Your task to perform on an android device: Search for 8K TVs on Best Buy. Image 0: 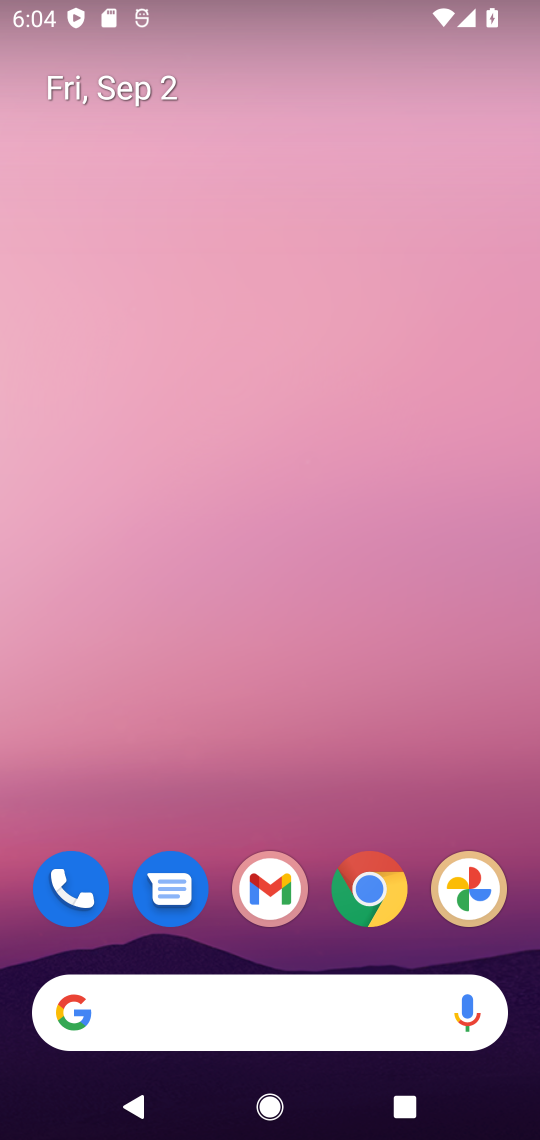
Step 0: click (268, 1023)
Your task to perform on an android device: Search for 8K TVs on Best Buy. Image 1: 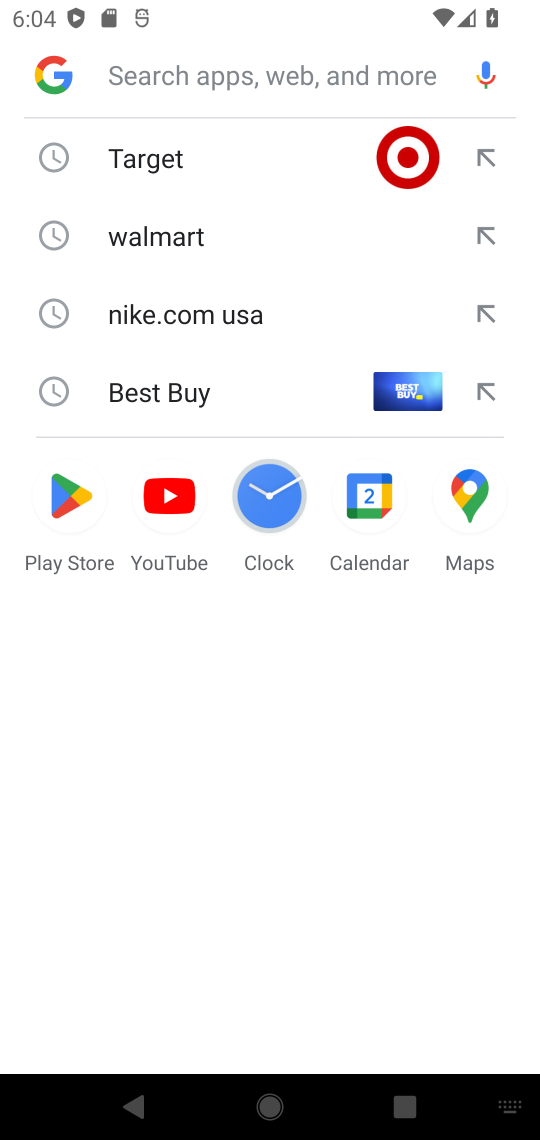
Step 1: click (211, 401)
Your task to perform on an android device: Search for 8K TVs on Best Buy. Image 2: 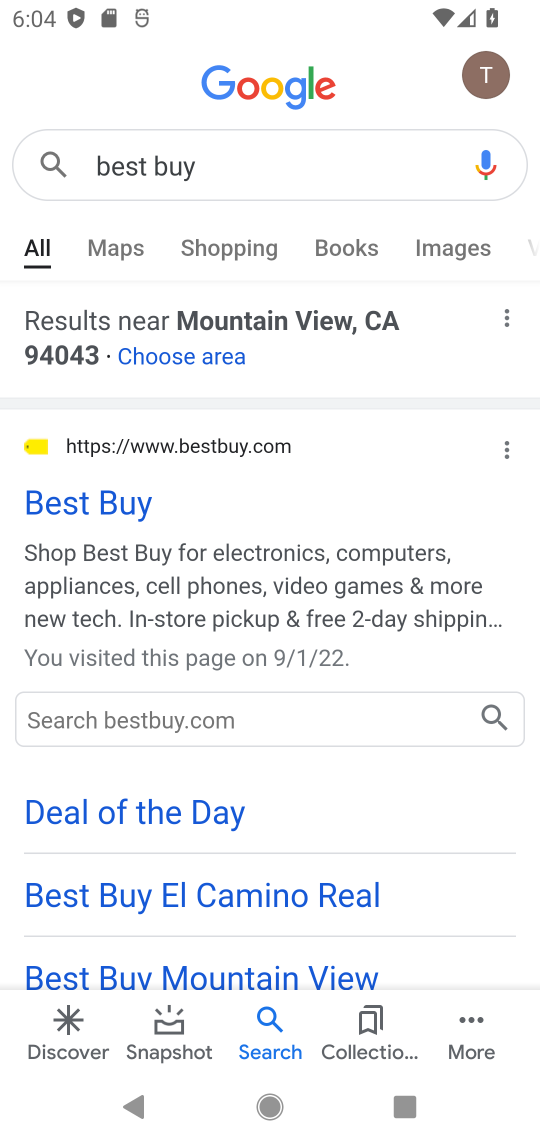
Step 2: click (119, 498)
Your task to perform on an android device: Search for 8K TVs on Best Buy. Image 3: 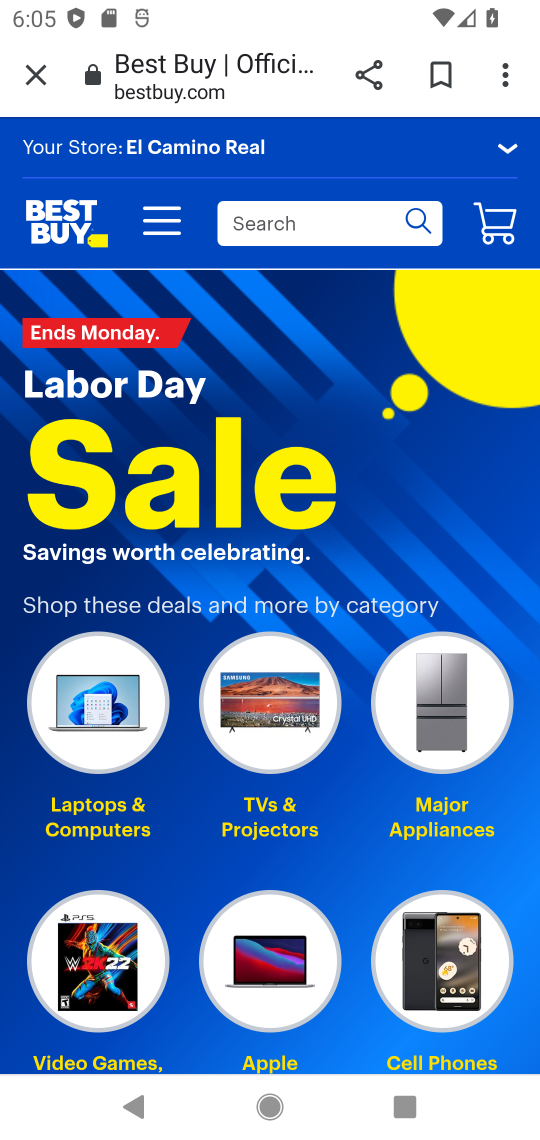
Step 3: click (270, 210)
Your task to perform on an android device: Search for 8K TVs on Best Buy. Image 4: 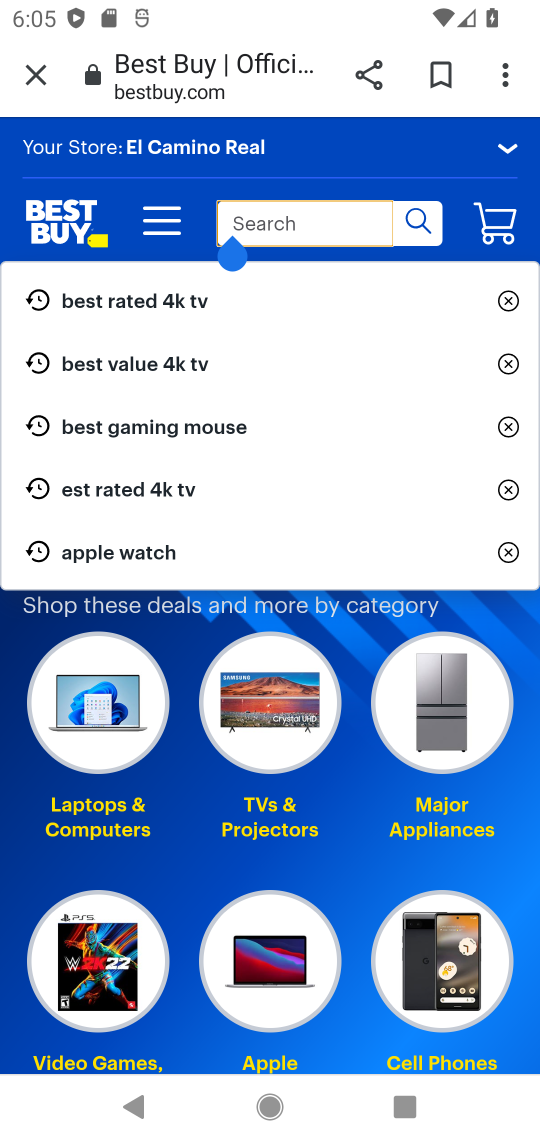
Step 4: type "8K TVs"
Your task to perform on an android device: Search for 8K TVs on Best Buy. Image 5: 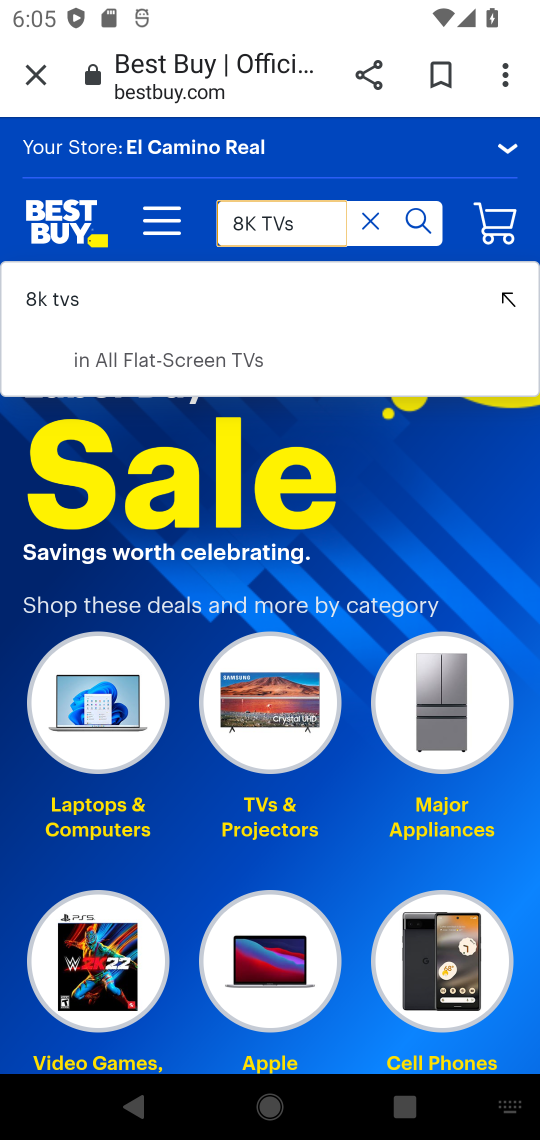
Step 5: click (417, 222)
Your task to perform on an android device: Search for 8K TVs on Best Buy. Image 6: 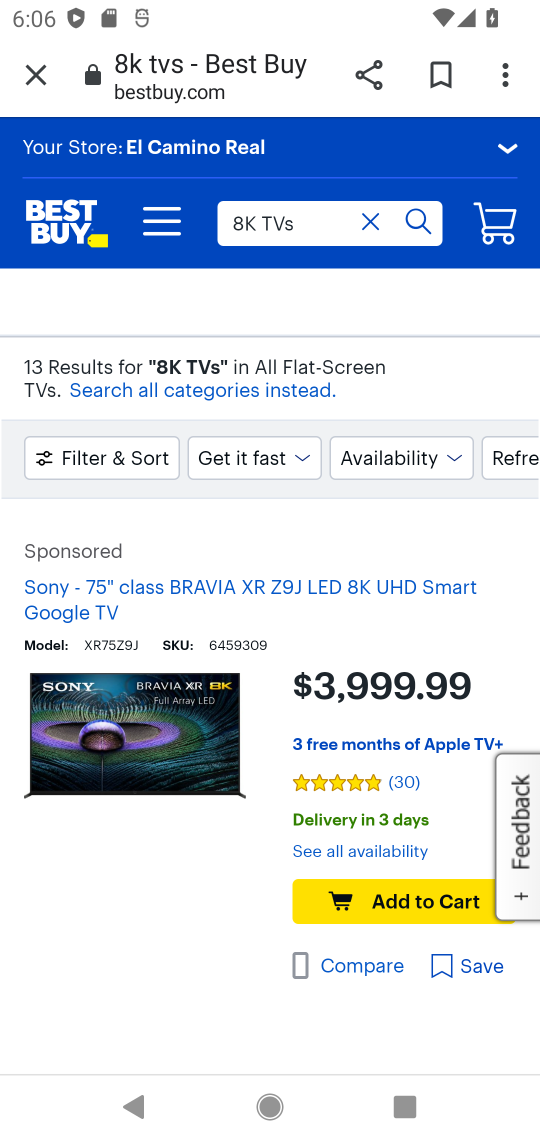
Step 6: drag from (177, 954) to (206, 414)
Your task to perform on an android device: Search for 8K TVs on Best Buy. Image 7: 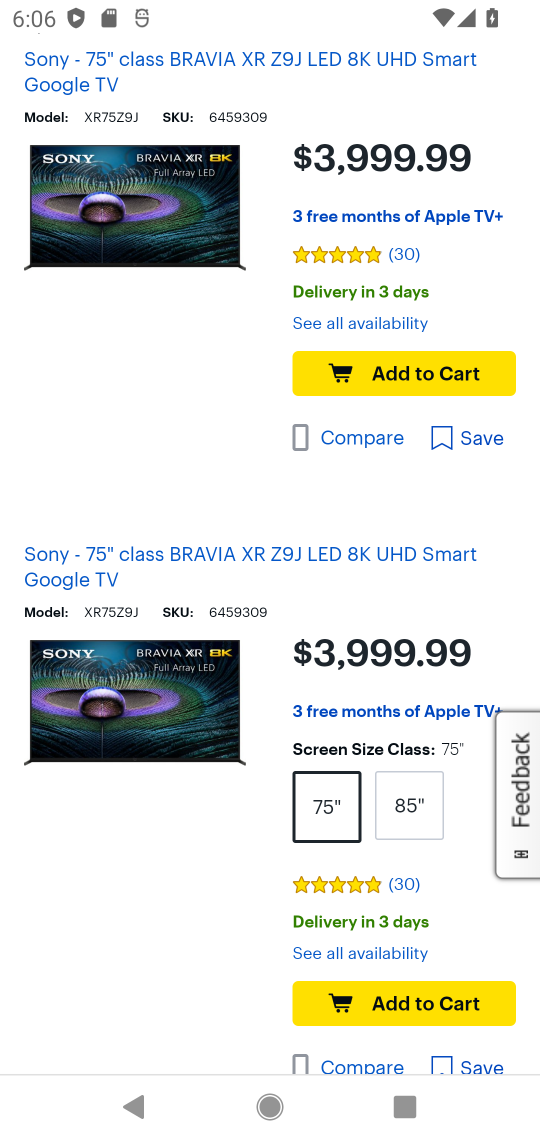
Step 7: click (220, 683)
Your task to perform on an android device: Search for 8K TVs on Best Buy. Image 8: 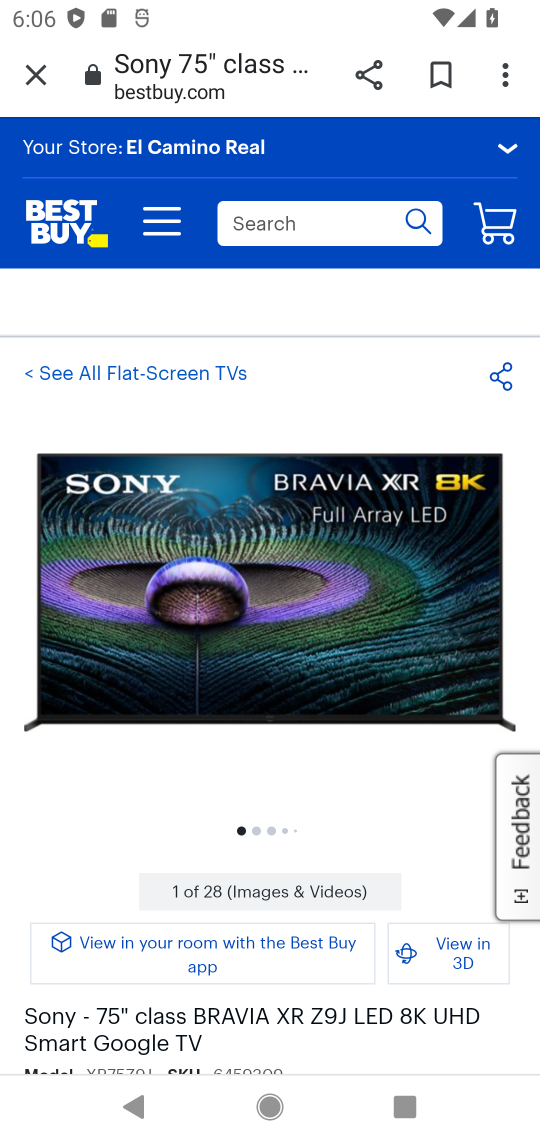
Step 8: task complete